Your task to perform on an android device: Go to Wikipedia Image 0: 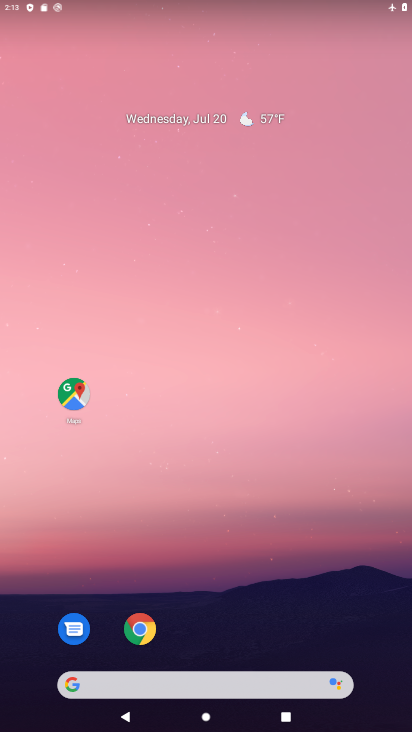
Step 0: click (156, 618)
Your task to perform on an android device: Go to Wikipedia Image 1: 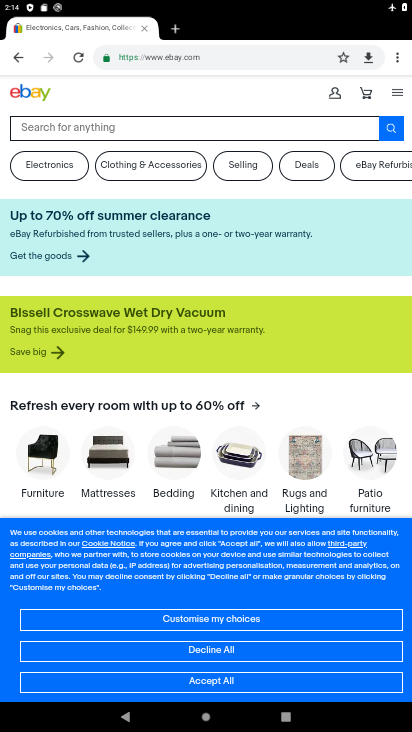
Step 1: click (171, 30)
Your task to perform on an android device: Go to Wikipedia Image 2: 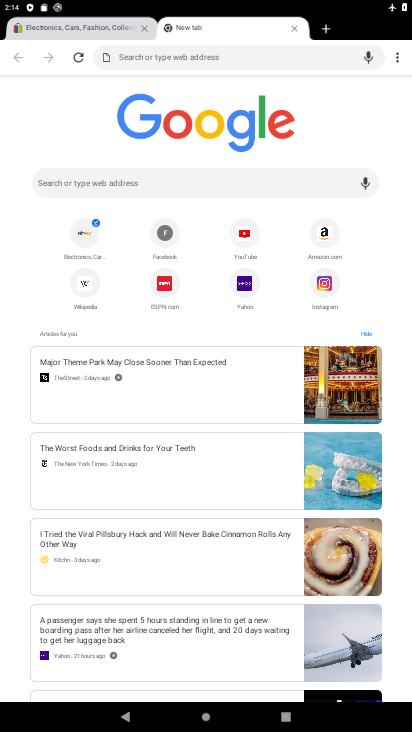
Step 2: click (93, 299)
Your task to perform on an android device: Go to Wikipedia Image 3: 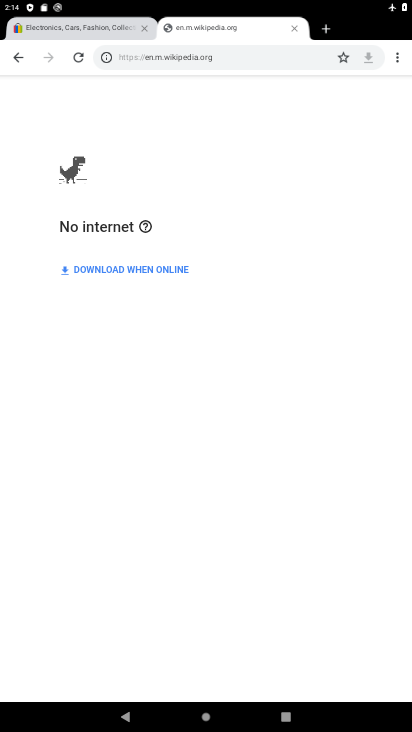
Step 3: task complete